Your task to perform on an android device: Open settings Image 0: 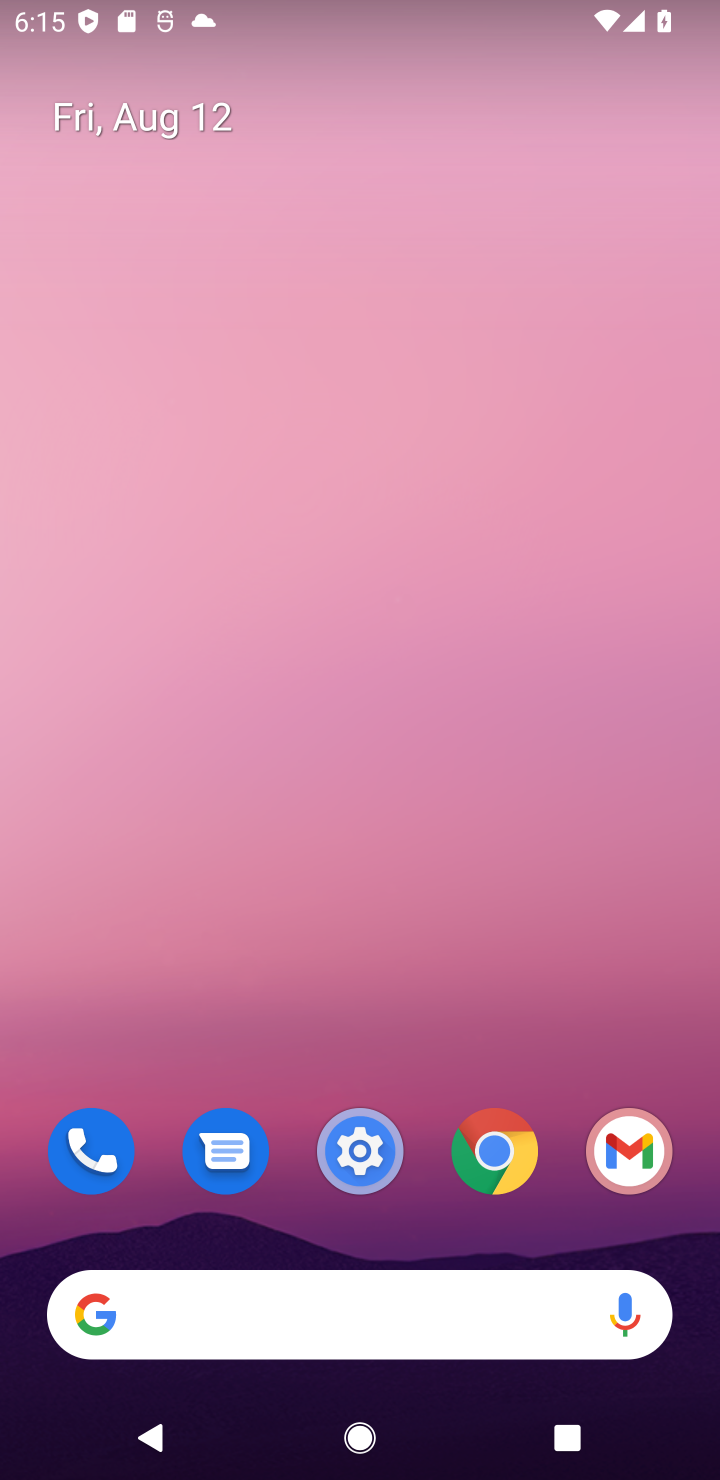
Step 0: drag from (430, 766) to (467, 142)
Your task to perform on an android device: Open settings Image 1: 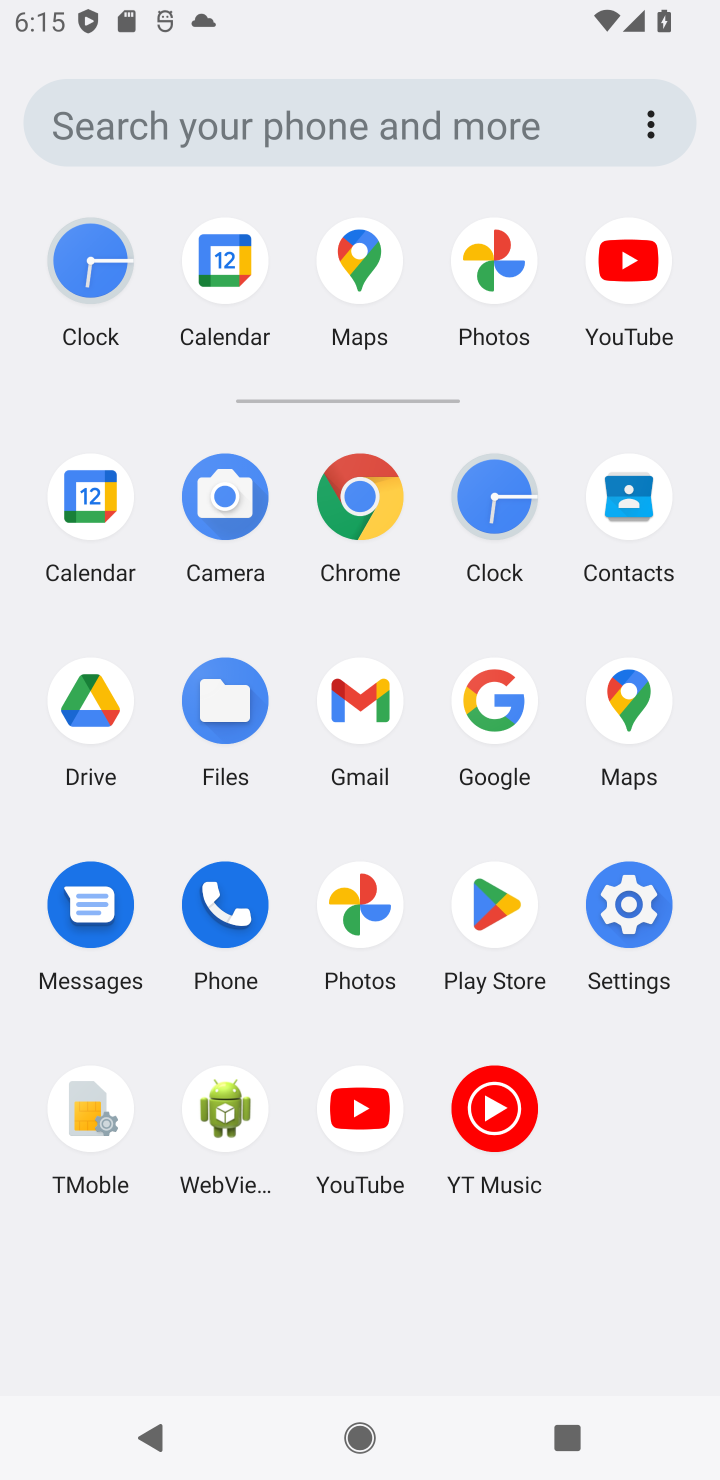
Step 1: click (656, 901)
Your task to perform on an android device: Open settings Image 2: 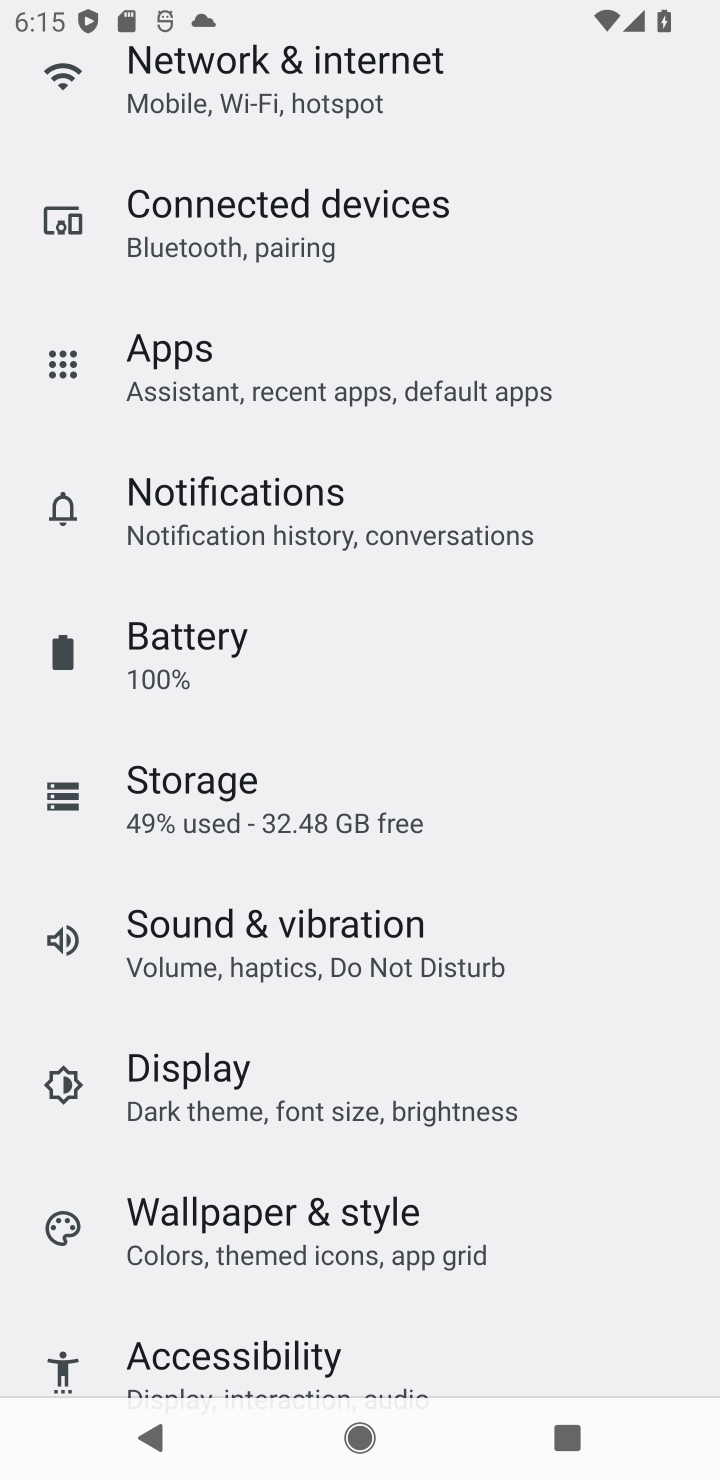
Step 2: task complete